Your task to perform on an android device: turn on airplane mode Image 0: 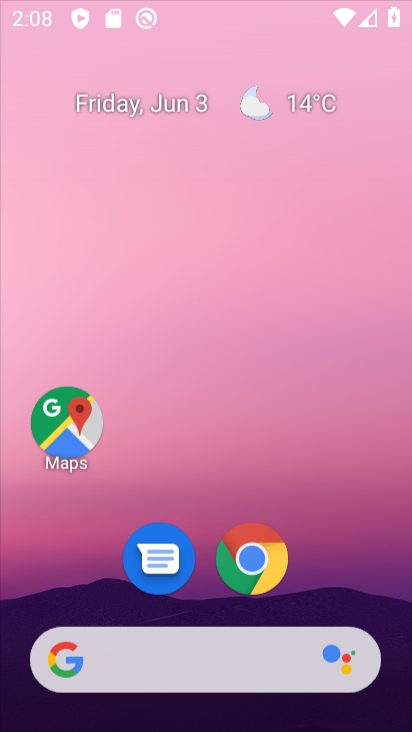
Step 0: drag from (160, 407) to (221, 0)
Your task to perform on an android device: turn on airplane mode Image 1: 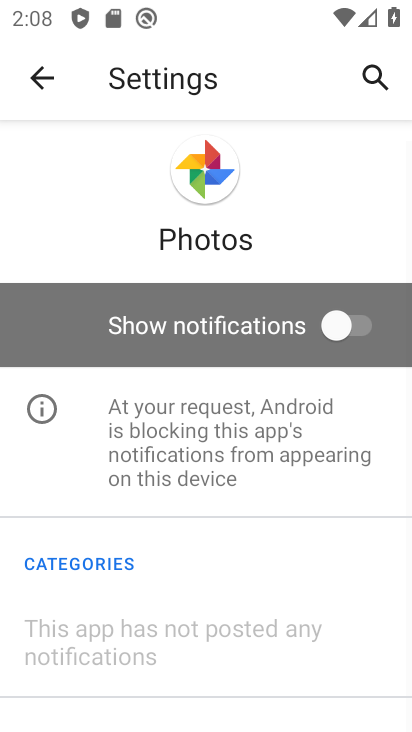
Step 1: press home button
Your task to perform on an android device: turn on airplane mode Image 2: 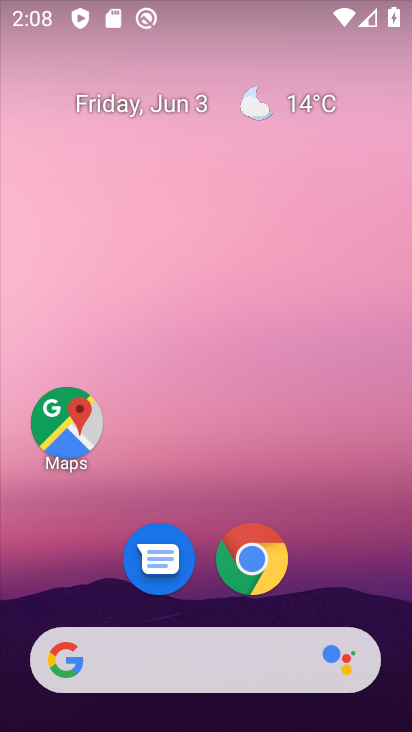
Step 2: drag from (219, 608) to (123, 69)
Your task to perform on an android device: turn on airplane mode Image 3: 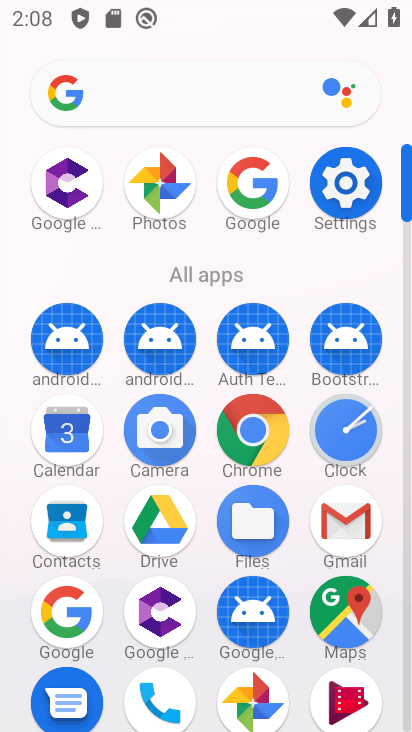
Step 3: click (334, 193)
Your task to perform on an android device: turn on airplane mode Image 4: 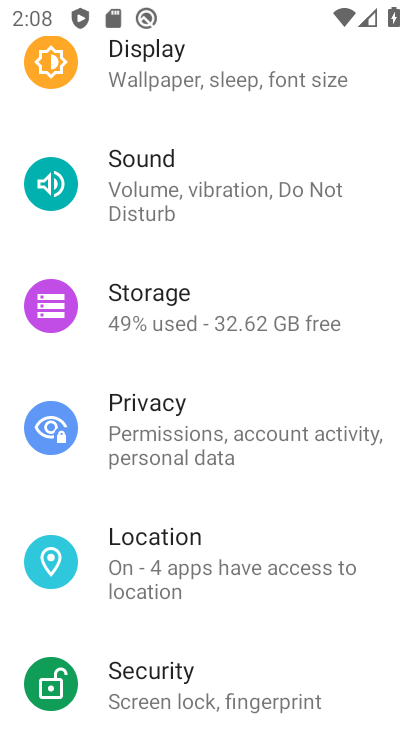
Step 4: drag from (264, 270) to (215, 729)
Your task to perform on an android device: turn on airplane mode Image 5: 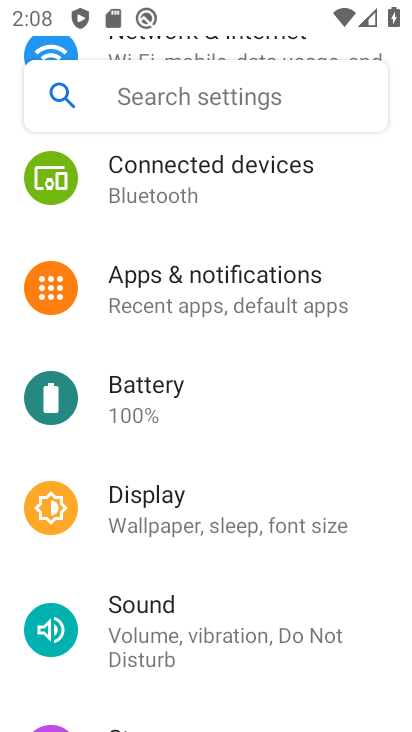
Step 5: drag from (171, 196) to (131, 522)
Your task to perform on an android device: turn on airplane mode Image 6: 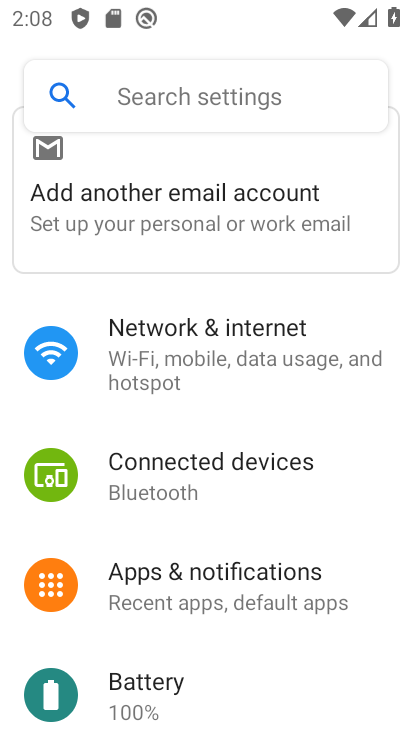
Step 6: click (152, 376)
Your task to perform on an android device: turn on airplane mode Image 7: 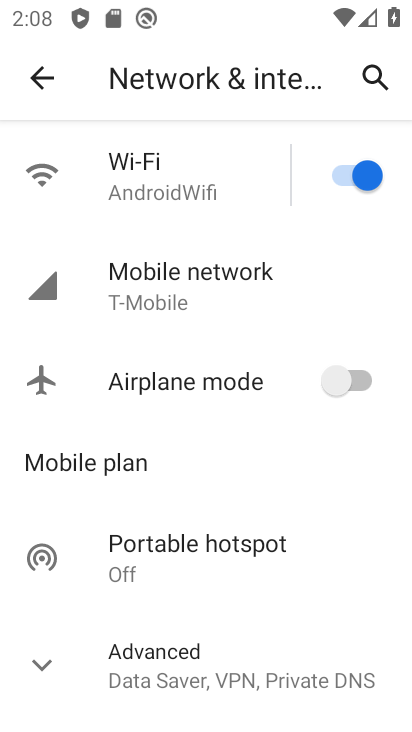
Step 7: click (210, 387)
Your task to perform on an android device: turn on airplane mode Image 8: 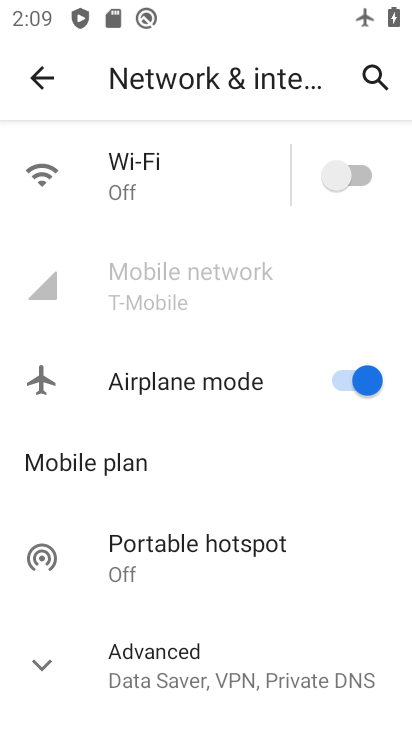
Step 8: task complete